Your task to perform on an android device: Go to Amazon Image 0: 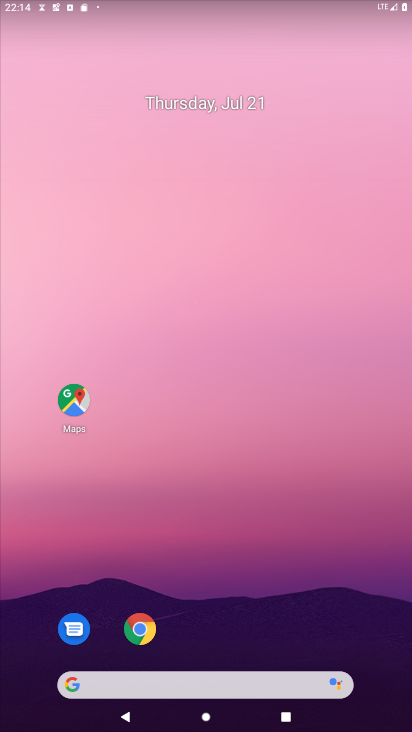
Step 0: drag from (240, 562) to (257, 63)
Your task to perform on an android device: Go to Amazon Image 1: 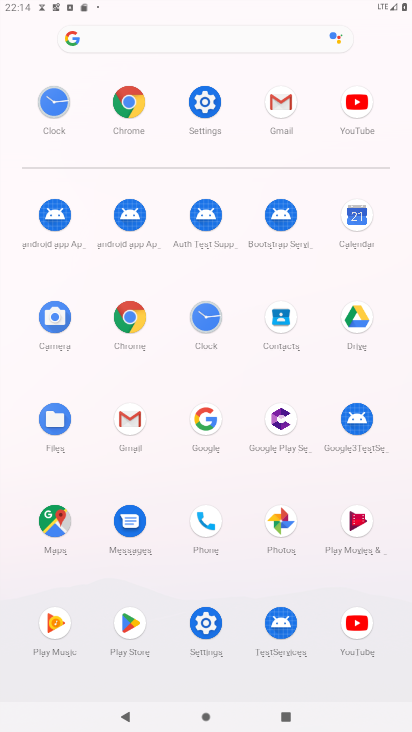
Step 1: click (121, 327)
Your task to perform on an android device: Go to Amazon Image 2: 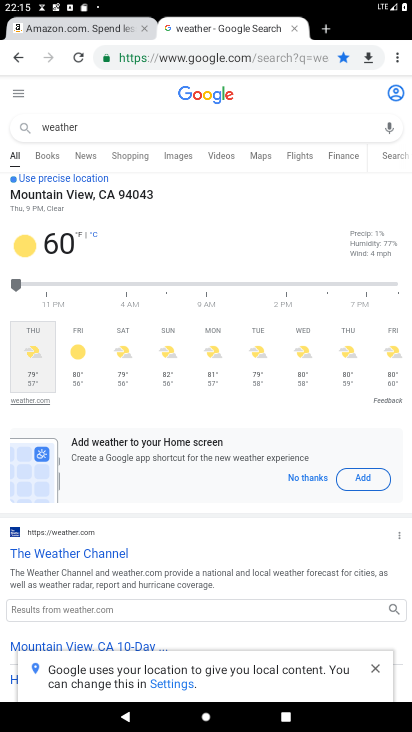
Step 2: click (64, 32)
Your task to perform on an android device: Go to Amazon Image 3: 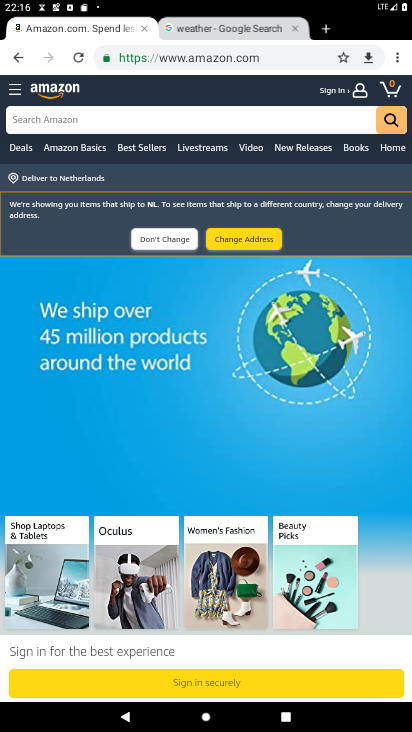
Step 3: task complete